Your task to perform on an android device: visit the assistant section in the google photos Image 0: 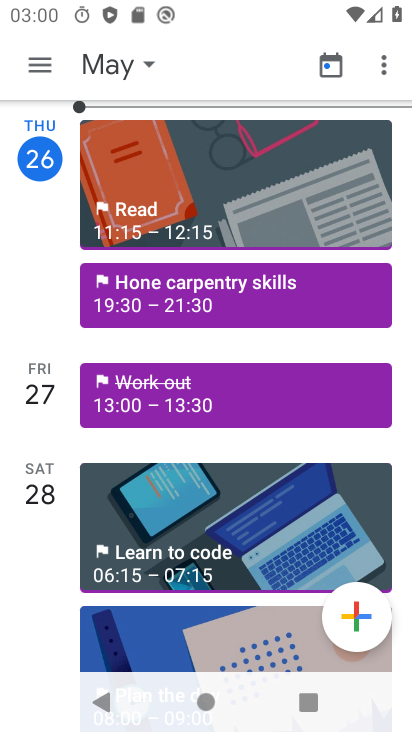
Step 0: click (129, 65)
Your task to perform on an android device: visit the assistant section in the google photos Image 1: 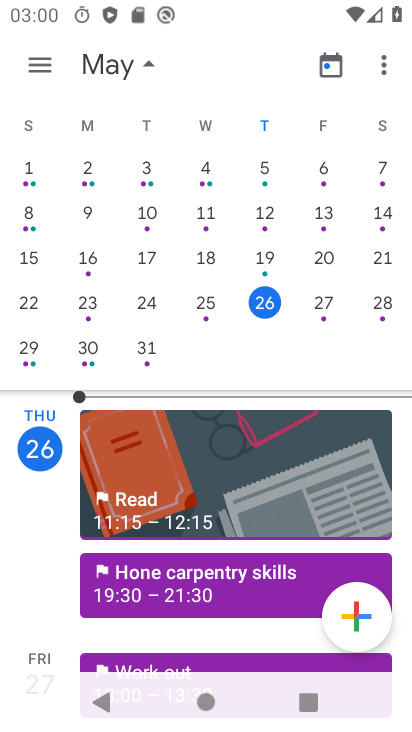
Step 1: click (129, 65)
Your task to perform on an android device: visit the assistant section in the google photos Image 2: 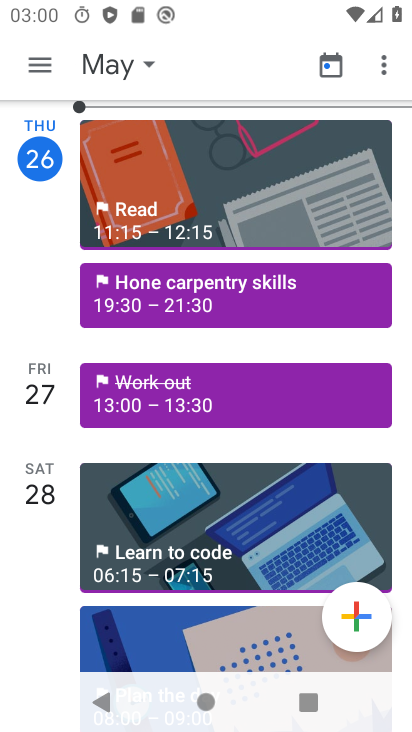
Step 2: click (129, 65)
Your task to perform on an android device: visit the assistant section in the google photos Image 3: 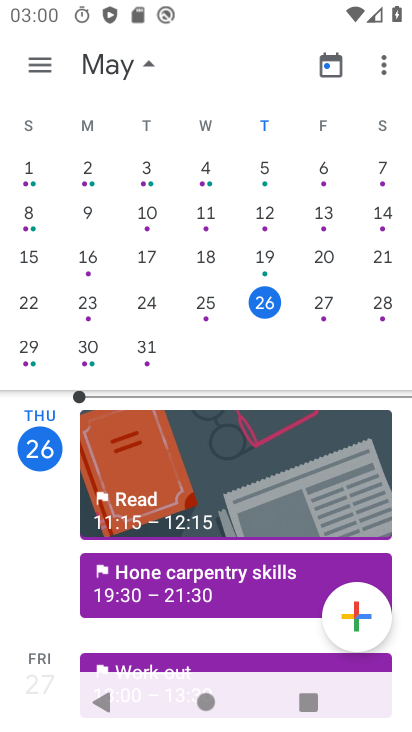
Step 3: press home button
Your task to perform on an android device: visit the assistant section in the google photos Image 4: 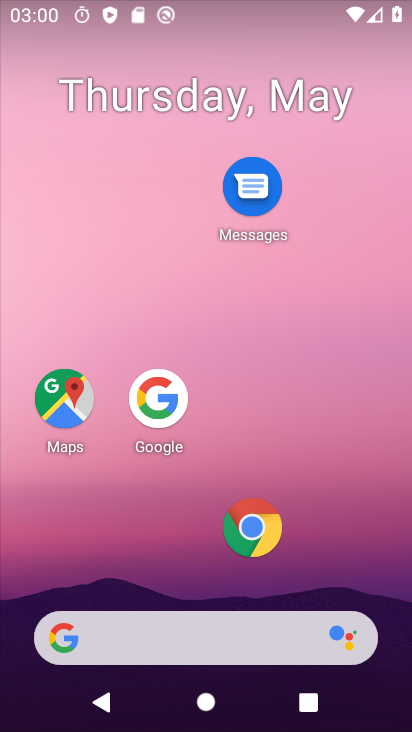
Step 4: drag from (216, 545) to (192, 123)
Your task to perform on an android device: visit the assistant section in the google photos Image 5: 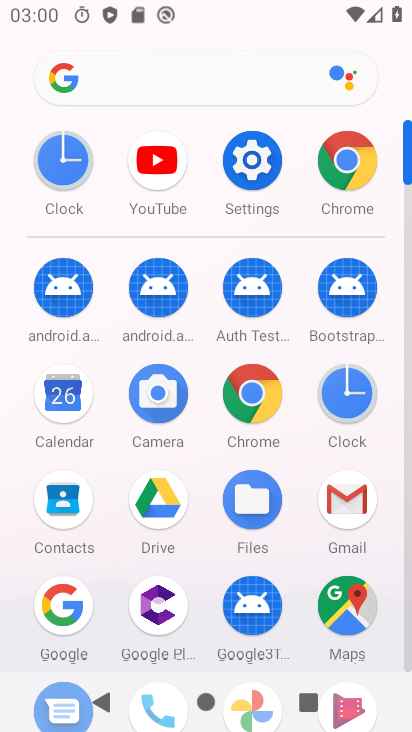
Step 5: drag from (207, 582) to (224, 166)
Your task to perform on an android device: visit the assistant section in the google photos Image 6: 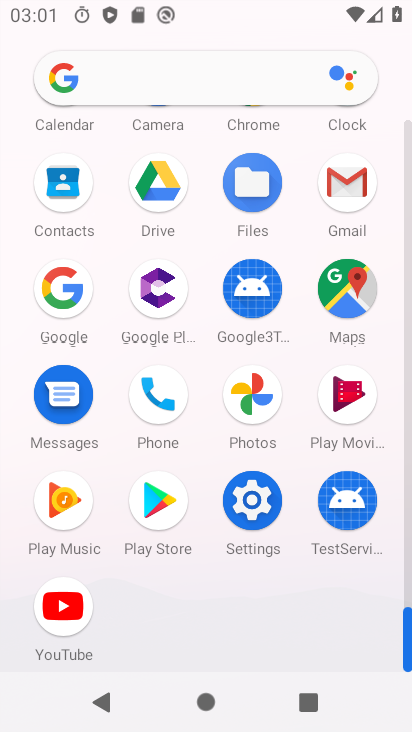
Step 6: click (255, 392)
Your task to perform on an android device: visit the assistant section in the google photos Image 7: 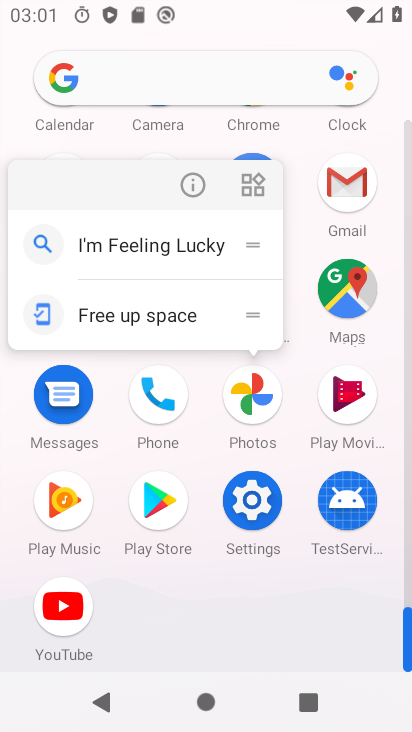
Step 7: click (194, 190)
Your task to perform on an android device: visit the assistant section in the google photos Image 8: 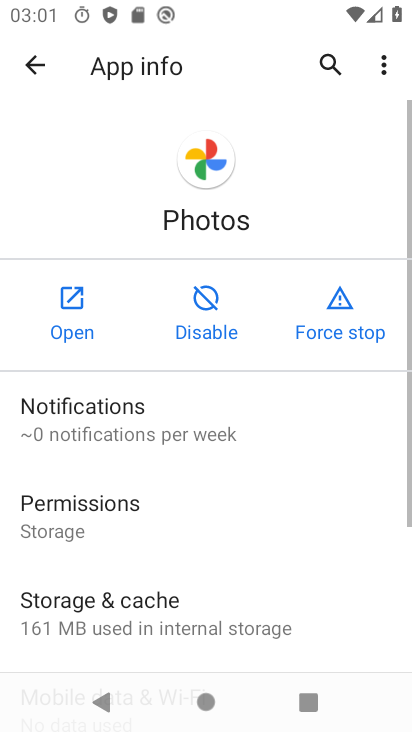
Step 8: click (75, 327)
Your task to perform on an android device: visit the assistant section in the google photos Image 9: 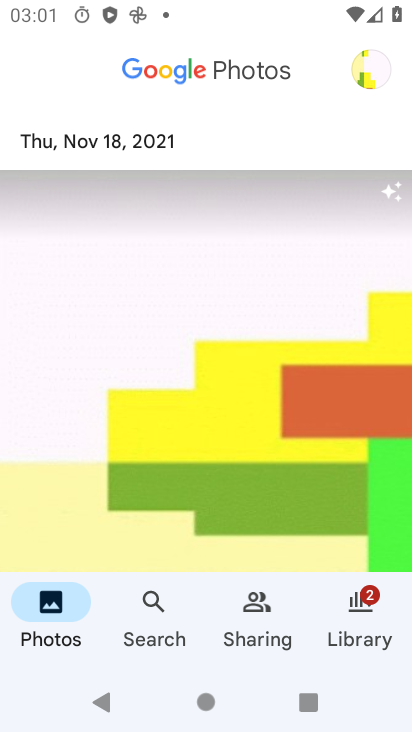
Step 9: click (154, 603)
Your task to perform on an android device: visit the assistant section in the google photos Image 10: 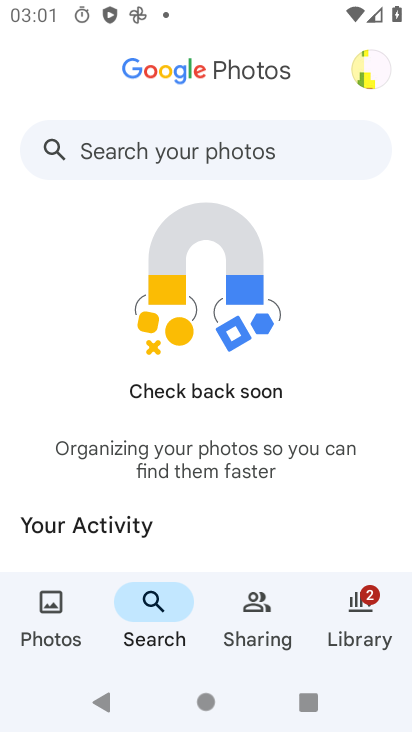
Step 10: click (260, 612)
Your task to perform on an android device: visit the assistant section in the google photos Image 11: 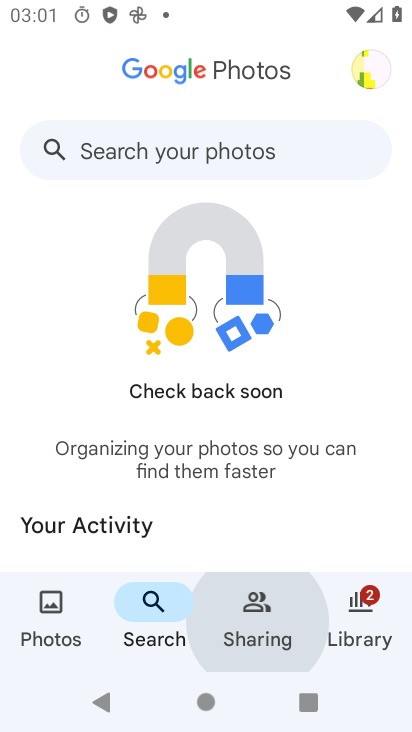
Step 11: click (364, 615)
Your task to perform on an android device: visit the assistant section in the google photos Image 12: 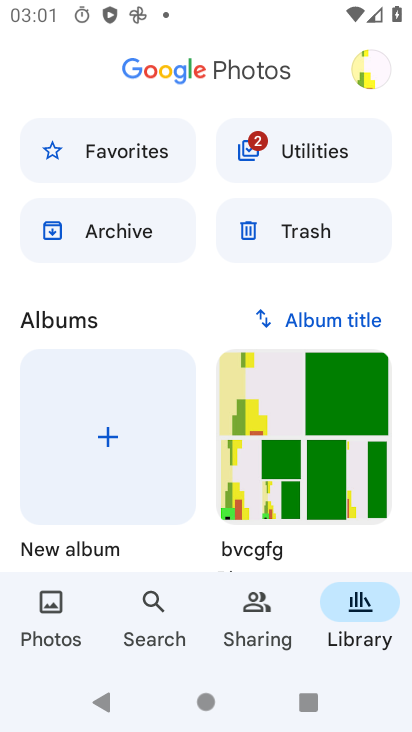
Step 12: task complete